Your task to perform on an android device: change the upload size in google photos Image 0: 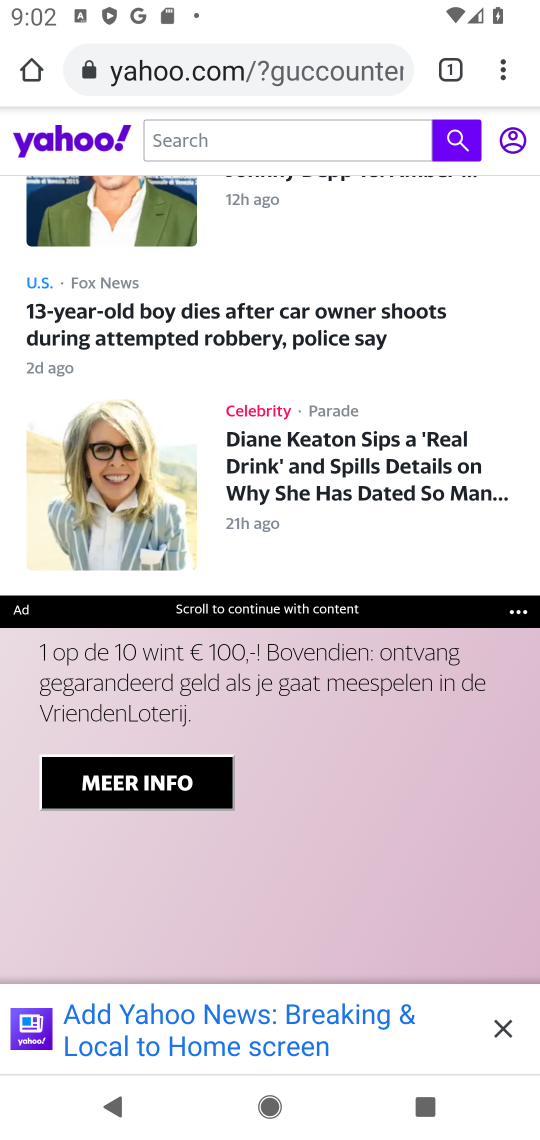
Step 0: press home button
Your task to perform on an android device: change the upload size in google photos Image 1: 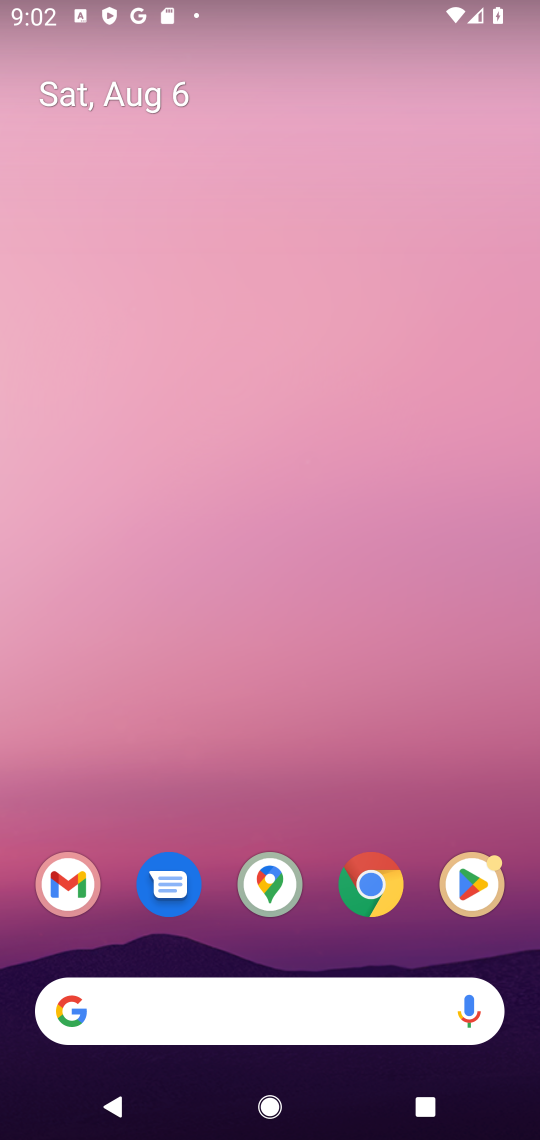
Step 1: drag from (429, 945) to (377, 122)
Your task to perform on an android device: change the upload size in google photos Image 2: 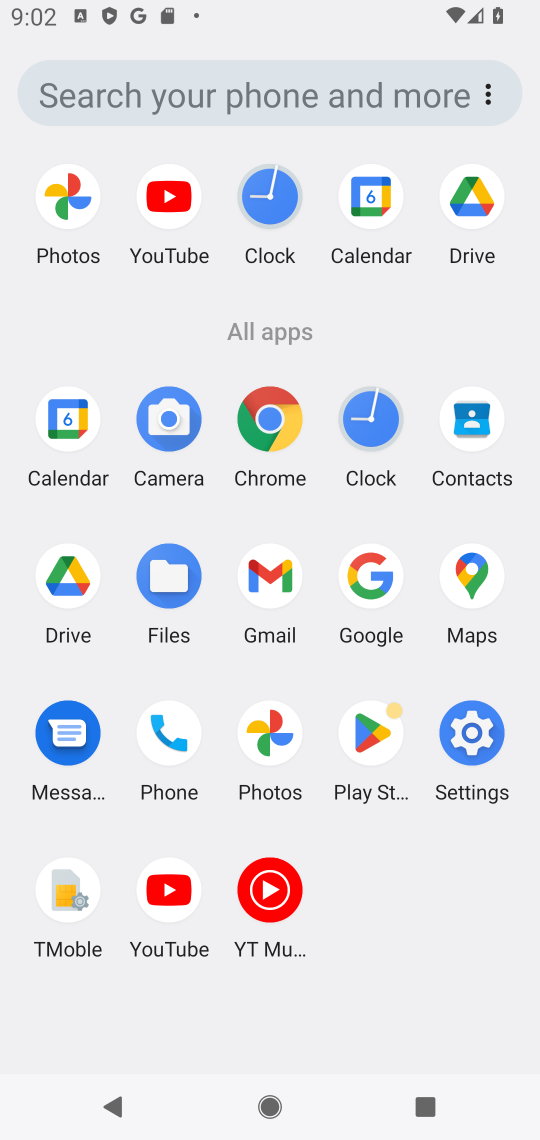
Step 2: click (269, 736)
Your task to perform on an android device: change the upload size in google photos Image 3: 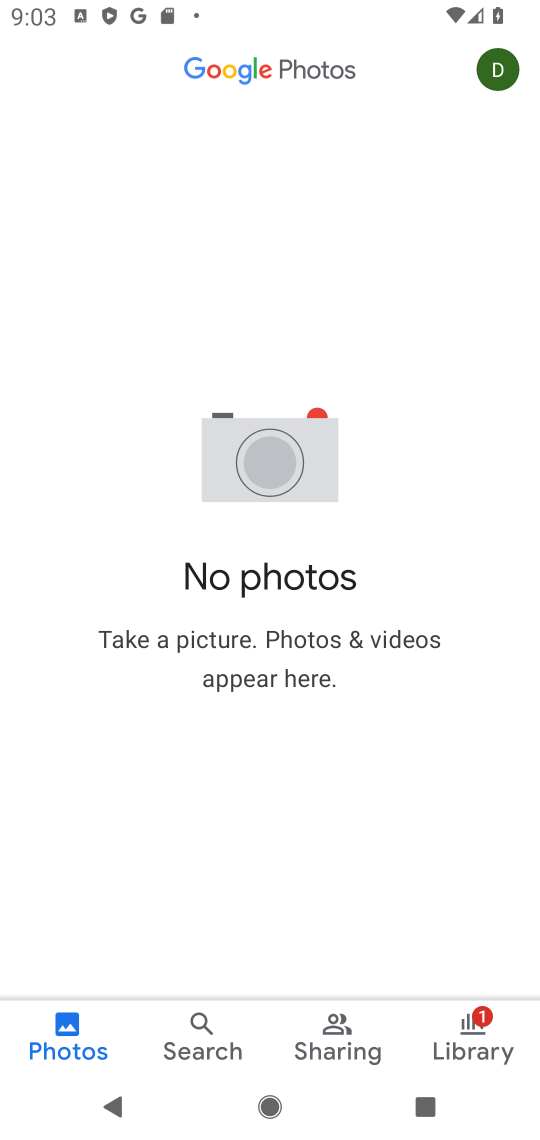
Step 3: click (499, 73)
Your task to perform on an android device: change the upload size in google photos Image 4: 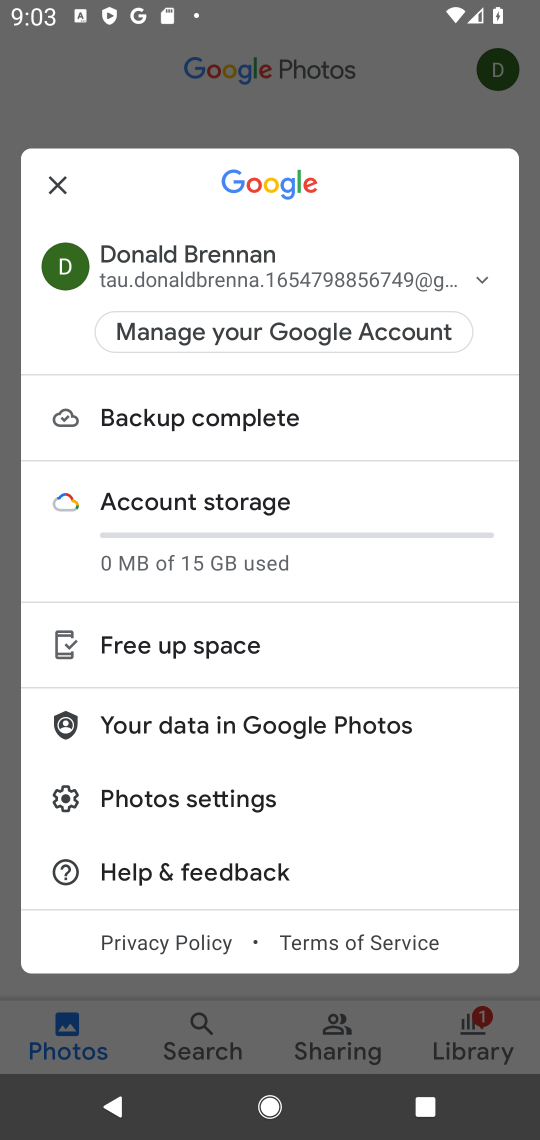
Step 4: click (170, 804)
Your task to perform on an android device: change the upload size in google photos Image 5: 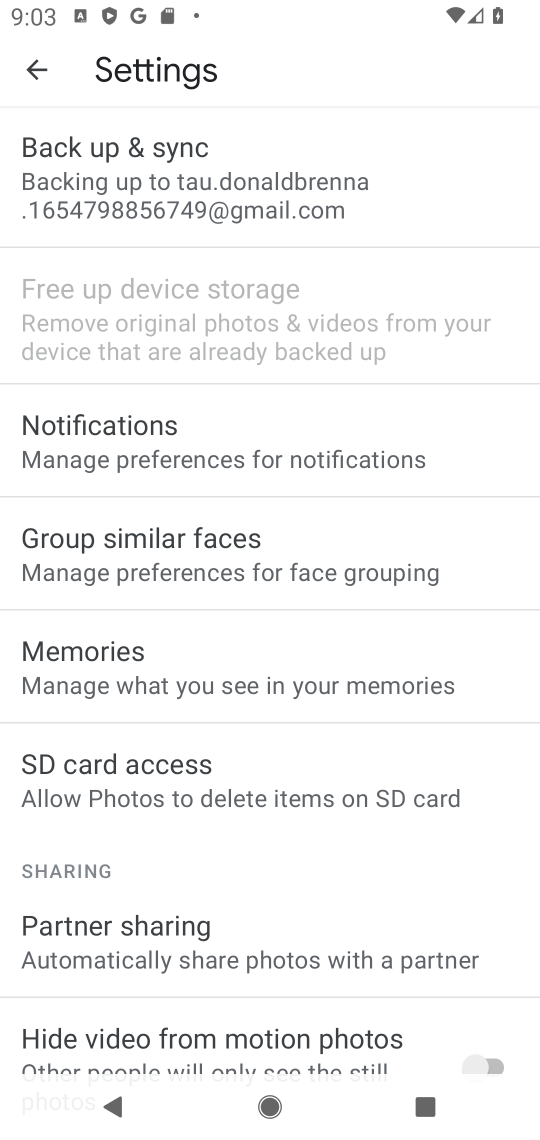
Step 5: click (149, 171)
Your task to perform on an android device: change the upload size in google photos Image 6: 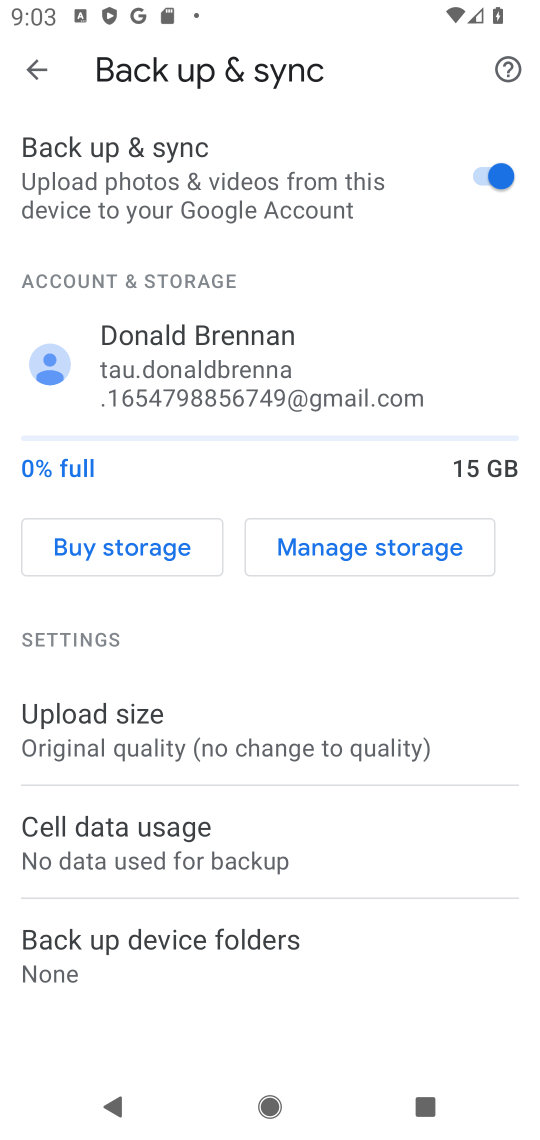
Step 6: click (148, 742)
Your task to perform on an android device: change the upload size in google photos Image 7: 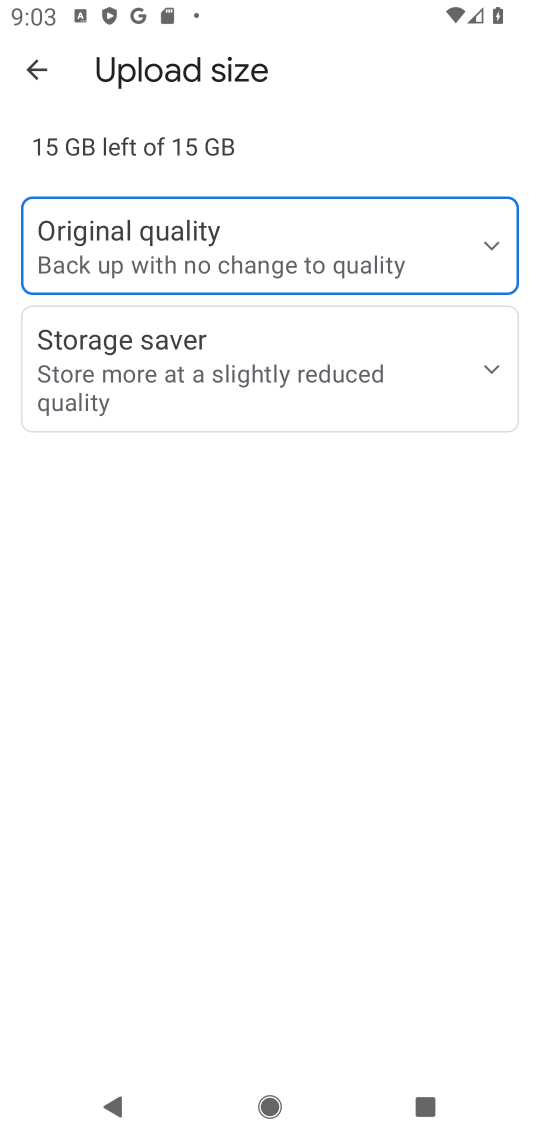
Step 7: click (484, 373)
Your task to perform on an android device: change the upload size in google photos Image 8: 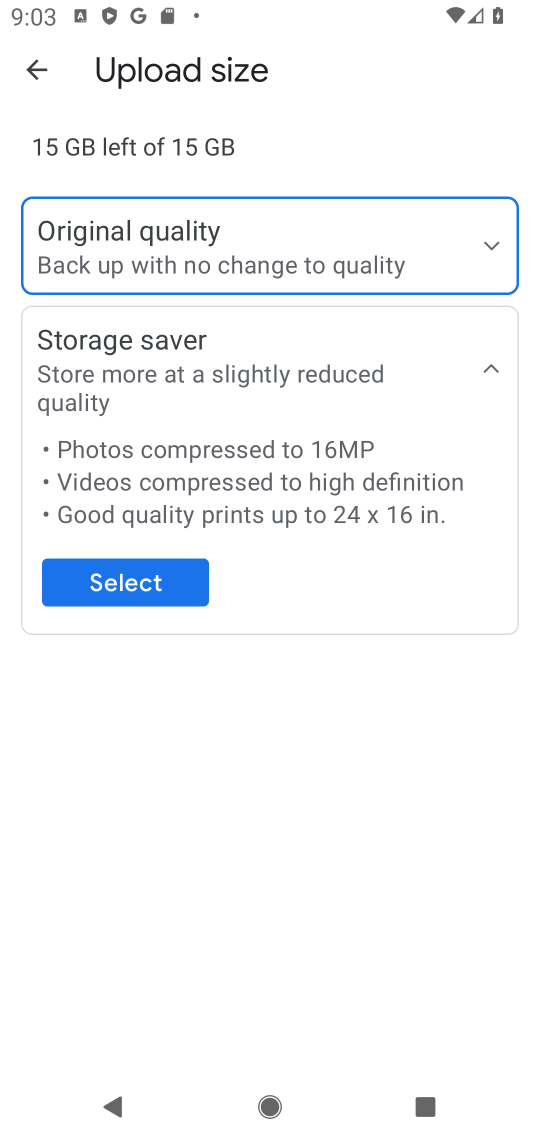
Step 8: click (115, 582)
Your task to perform on an android device: change the upload size in google photos Image 9: 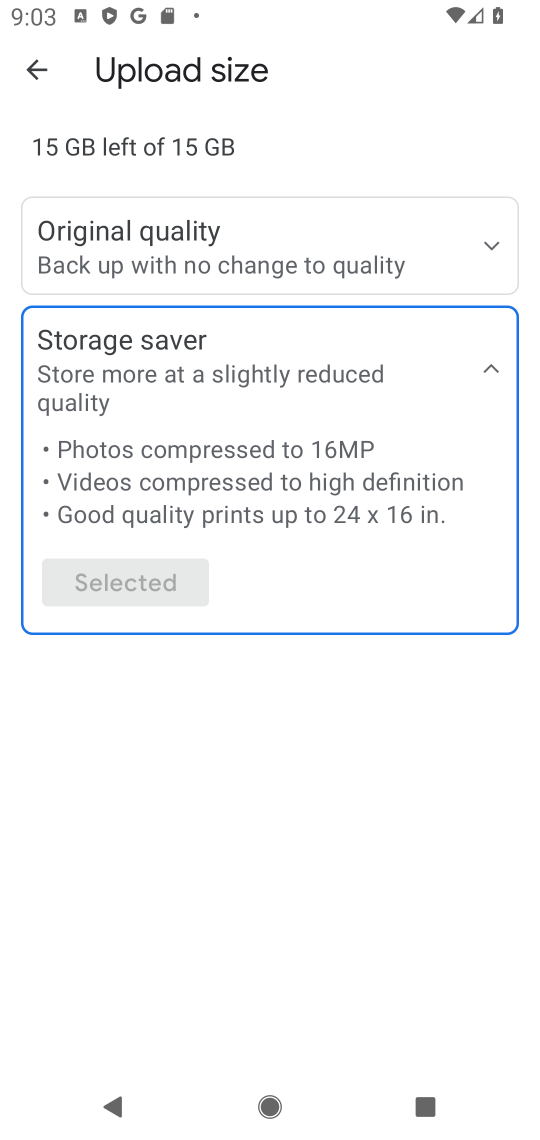
Step 9: task complete